Your task to perform on an android device: toggle priority inbox in the gmail app Image 0: 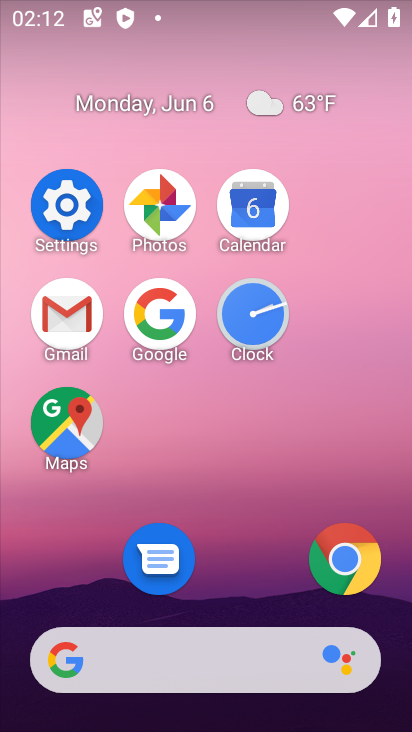
Step 0: click (82, 300)
Your task to perform on an android device: toggle priority inbox in the gmail app Image 1: 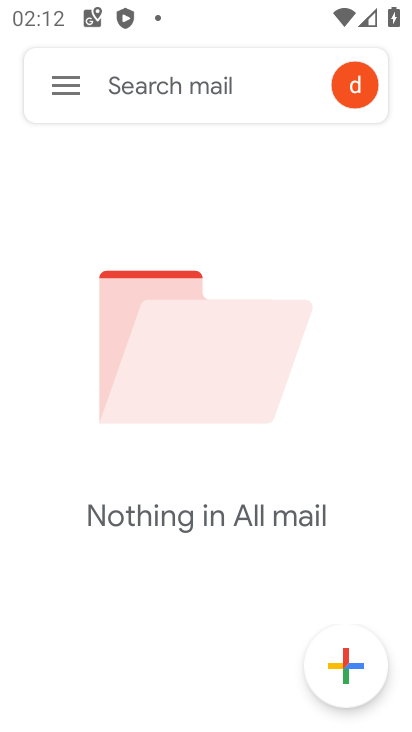
Step 1: click (67, 99)
Your task to perform on an android device: toggle priority inbox in the gmail app Image 2: 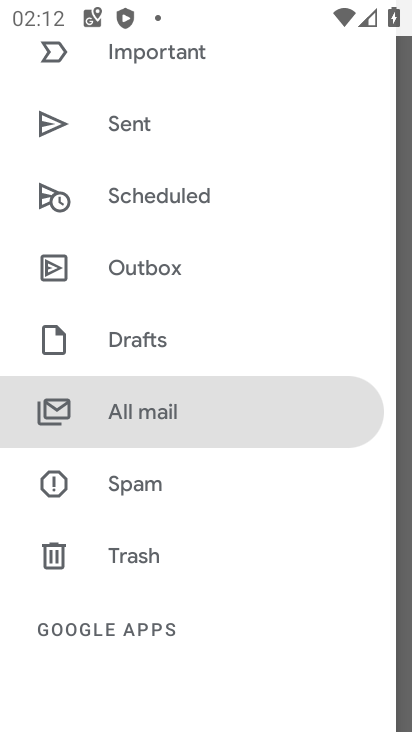
Step 2: drag from (160, 546) to (173, 231)
Your task to perform on an android device: toggle priority inbox in the gmail app Image 3: 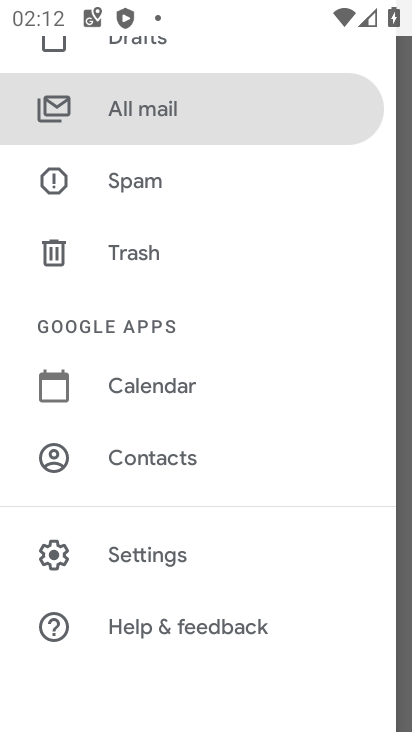
Step 3: click (140, 544)
Your task to perform on an android device: toggle priority inbox in the gmail app Image 4: 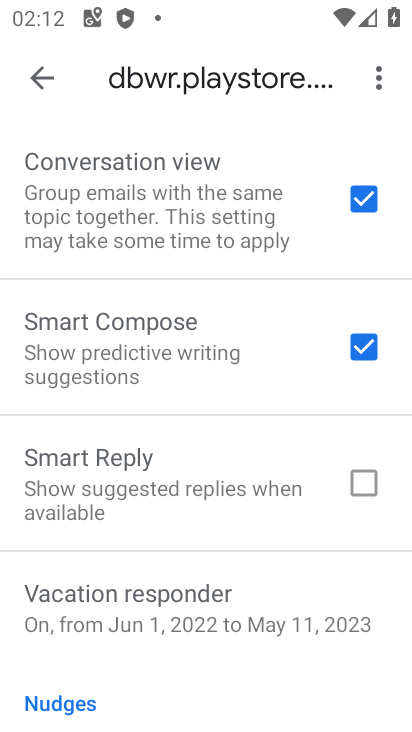
Step 4: drag from (241, 603) to (252, 223)
Your task to perform on an android device: toggle priority inbox in the gmail app Image 5: 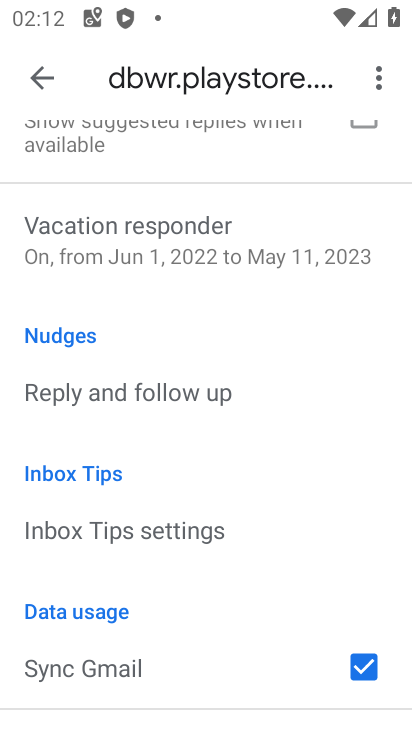
Step 5: drag from (258, 296) to (236, 641)
Your task to perform on an android device: toggle priority inbox in the gmail app Image 6: 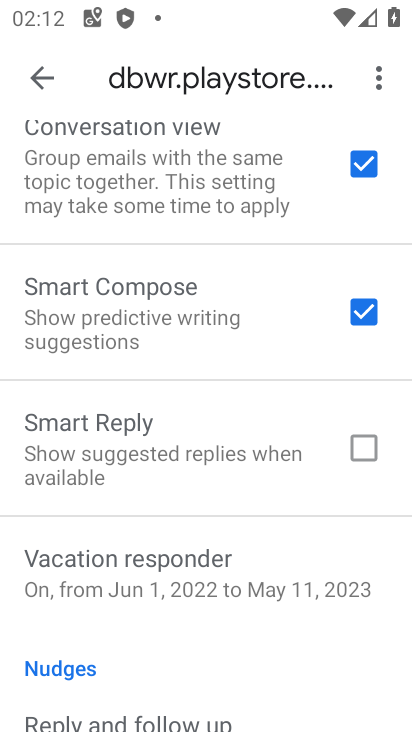
Step 6: drag from (249, 305) to (241, 653)
Your task to perform on an android device: toggle priority inbox in the gmail app Image 7: 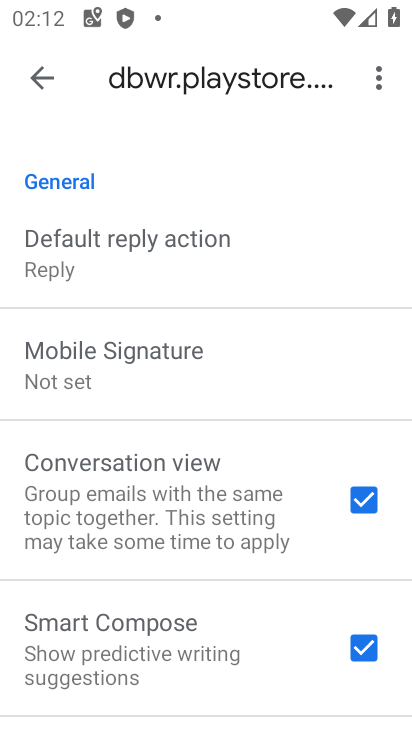
Step 7: drag from (319, 307) to (292, 626)
Your task to perform on an android device: toggle priority inbox in the gmail app Image 8: 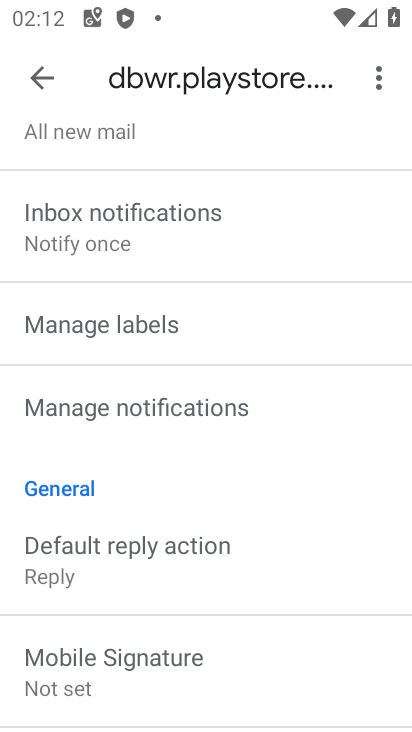
Step 8: drag from (213, 238) to (186, 608)
Your task to perform on an android device: toggle priority inbox in the gmail app Image 9: 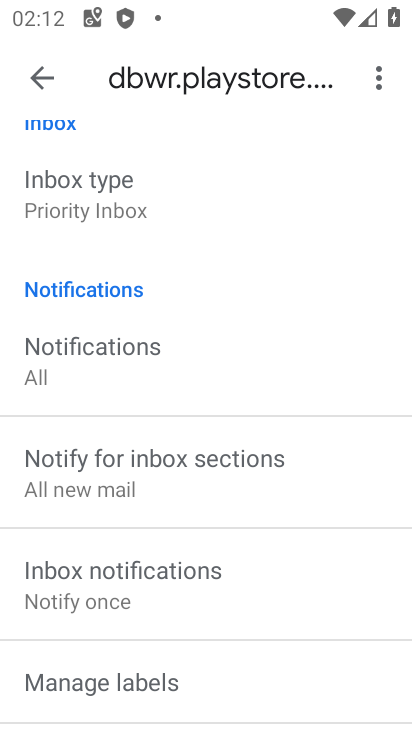
Step 9: click (199, 172)
Your task to perform on an android device: toggle priority inbox in the gmail app Image 10: 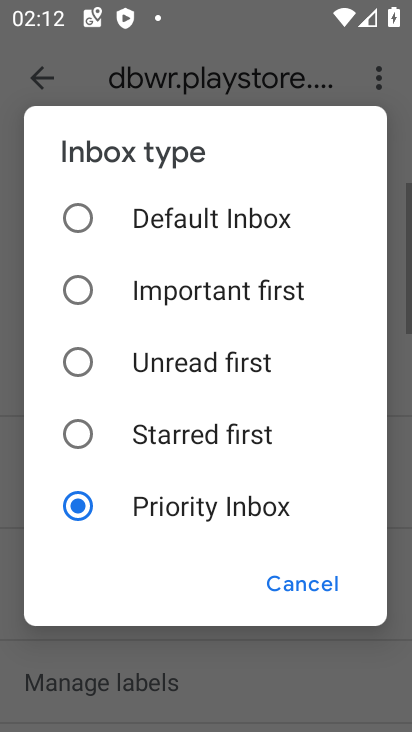
Step 10: click (210, 204)
Your task to perform on an android device: toggle priority inbox in the gmail app Image 11: 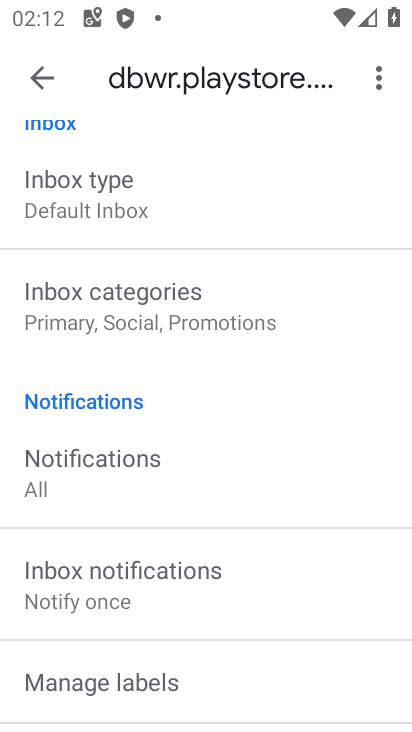
Step 11: task complete